Your task to perform on an android device: What is the news today? Image 0: 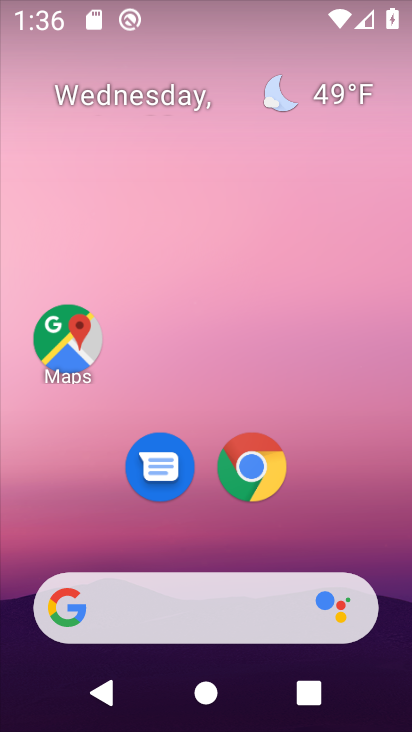
Step 0: drag from (21, 183) to (398, 261)
Your task to perform on an android device: What is the news today? Image 1: 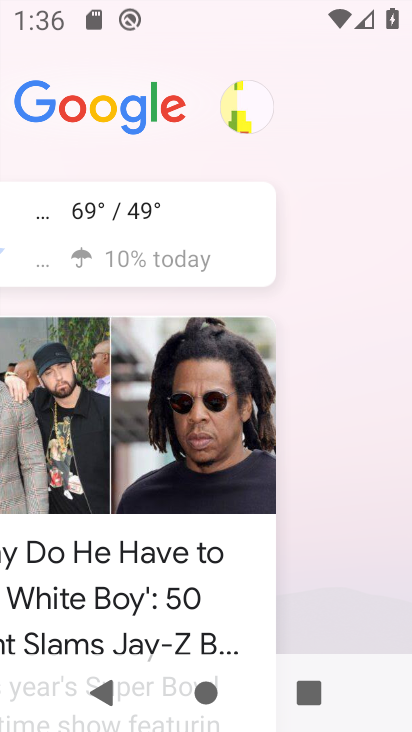
Step 1: task complete